Your task to perform on an android device: turn smart compose on in the gmail app Image 0: 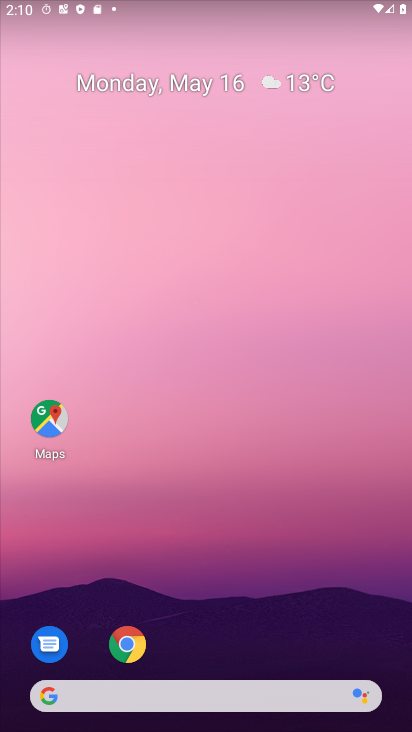
Step 0: drag from (235, 628) to (254, 122)
Your task to perform on an android device: turn smart compose on in the gmail app Image 1: 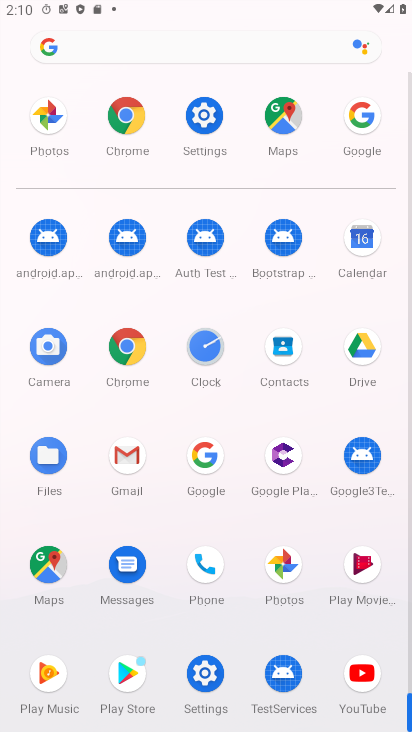
Step 1: click (138, 485)
Your task to perform on an android device: turn smart compose on in the gmail app Image 2: 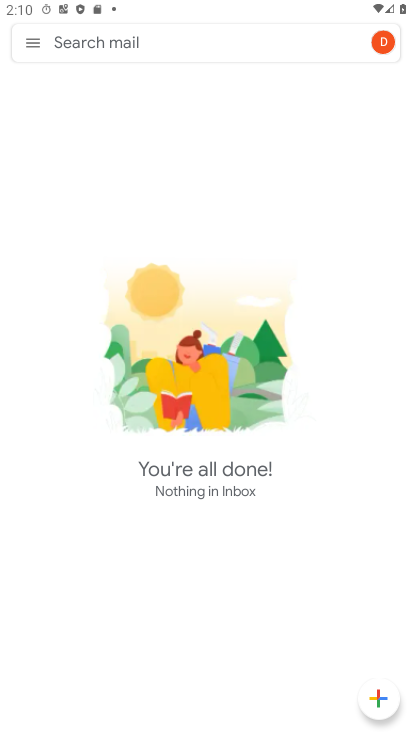
Step 2: click (39, 48)
Your task to perform on an android device: turn smart compose on in the gmail app Image 3: 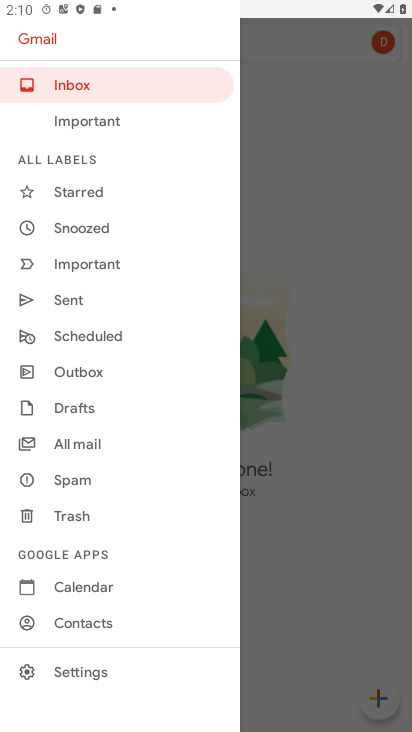
Step 3: click (126, 669)
Your task to perform on an android device: turn smart compose on in the gmail app Image 4: 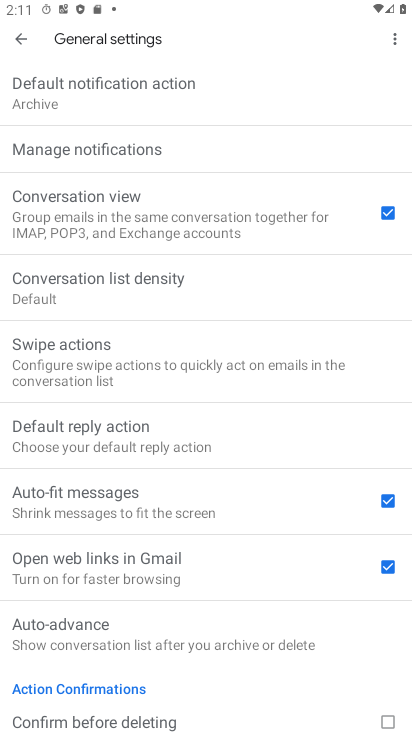
Step 4: click (22, 42)
Your task to perform on an android device: turn smart compose on in the gmail app Image 5: 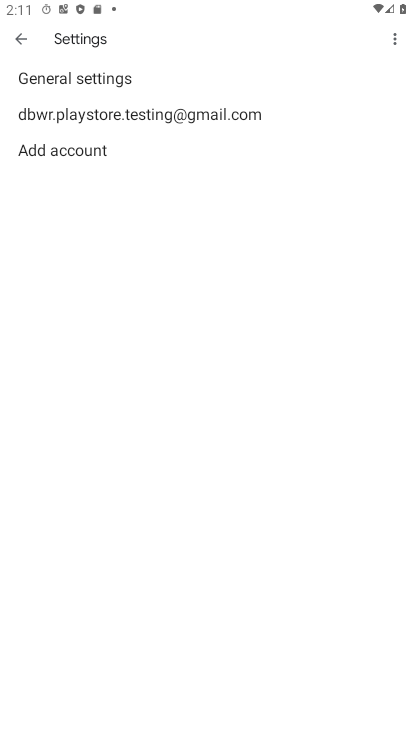
Step 5: click (107, 120)
Your task to perform on an android device: turn smart compose on in the gmail app Image 6: 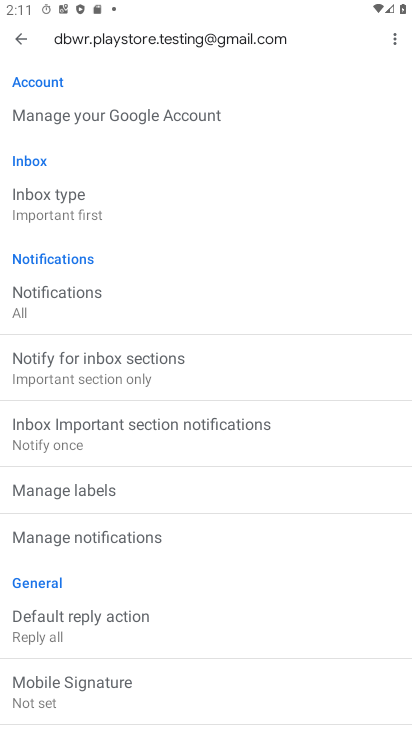
Step 6: task complete